Your task to perform on an android device: set the stopwatch Image 0: 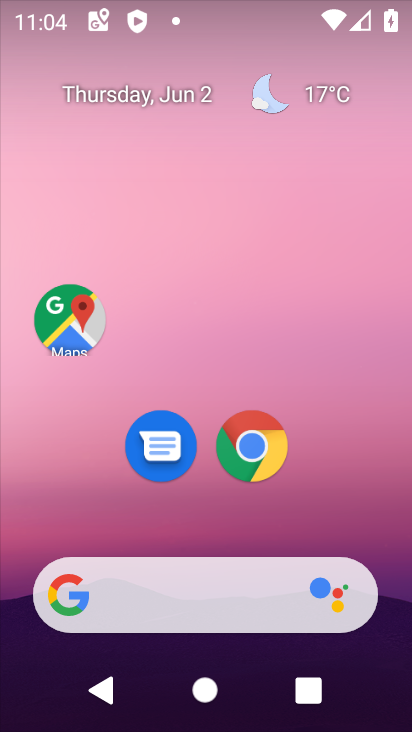
Step 0: drag from (365, 524) to (358, 292)
Your task to perform on an android device: set the stopwatch Image 1: 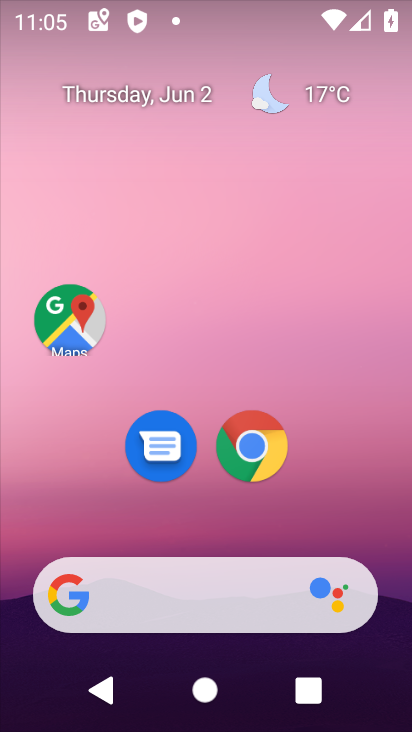
Step 1: drag from (345, 519) to (353, 200)
Your task to perform on an android device: set the stopwatch Image 2: 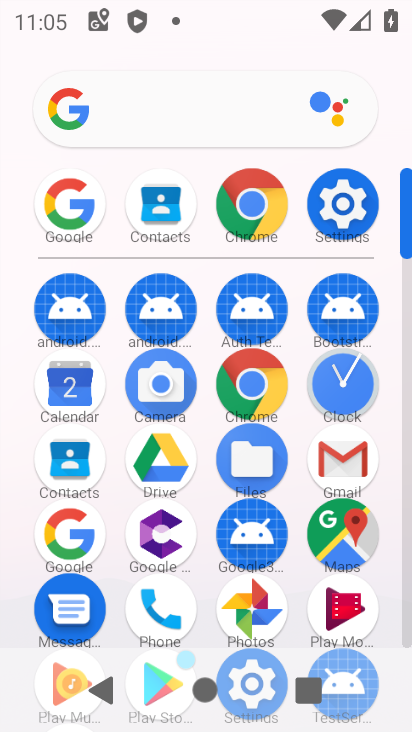
Step 2: click (353, 380)
Your task to perform on an android device: set the stopwatch Image 3: 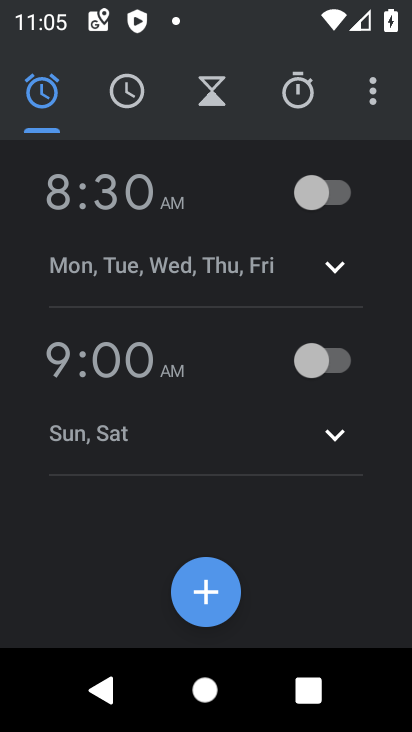
Step 3: click (307, 109)
Your task to perform on an android device: set the stopwatch Image 4: 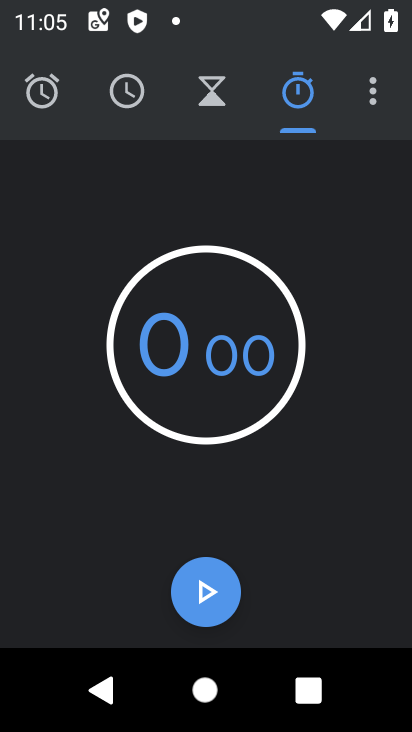
Step 4: click (201, 587)
Your task to perform on an android device: set the stopwatch Image 5: 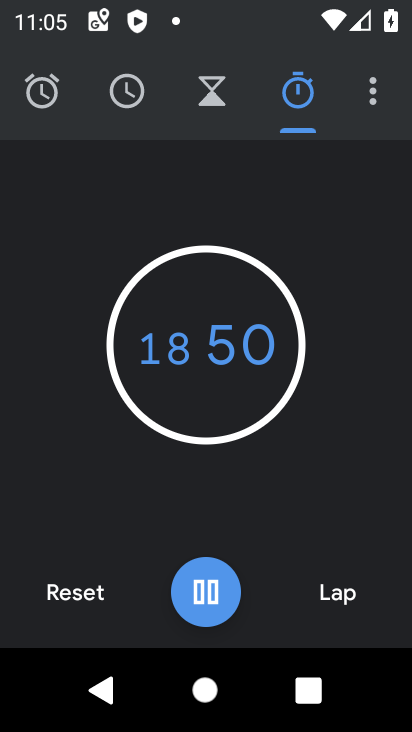
Step 5: task complete